Your task to perform on an android device: toggle pop-ups in chrome Image 0: 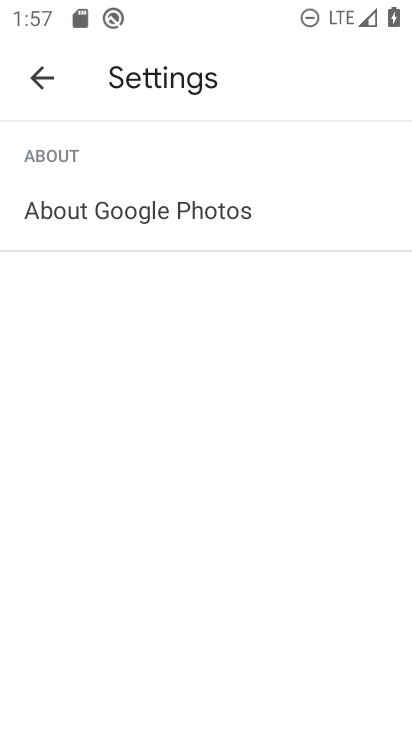
Step 0: press home button
Your task to perform on an android device: toggle pop-ups in chrome Image 1: 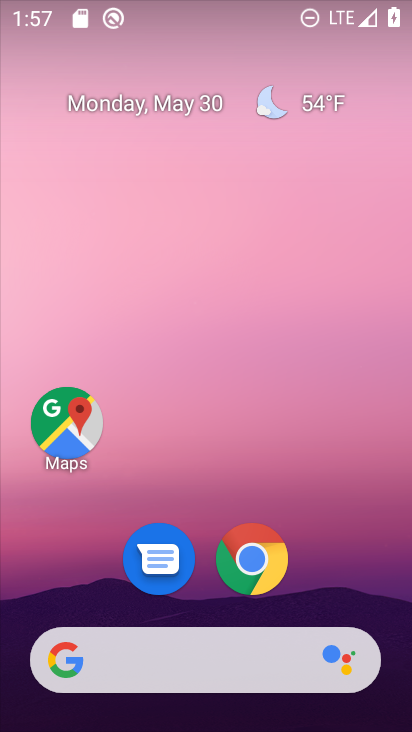
Step 1: click (252, 552)
Your task to perform on an android device: toggle pop-ups in chrome Image 2: 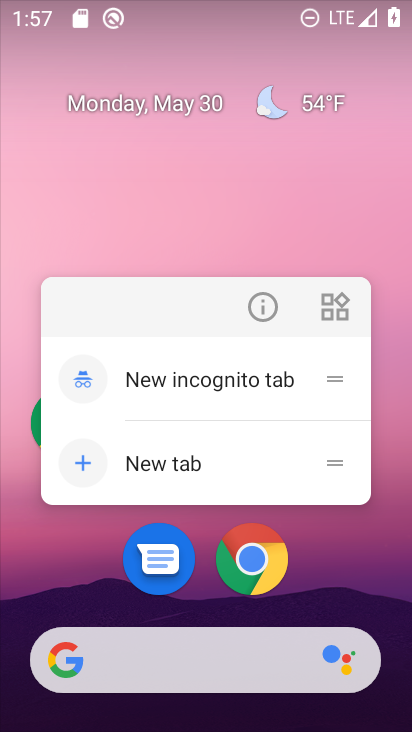
Step 2: click (249, 547)
Your task to perform on an android device: toggle pop-ups in chrome Image 3: 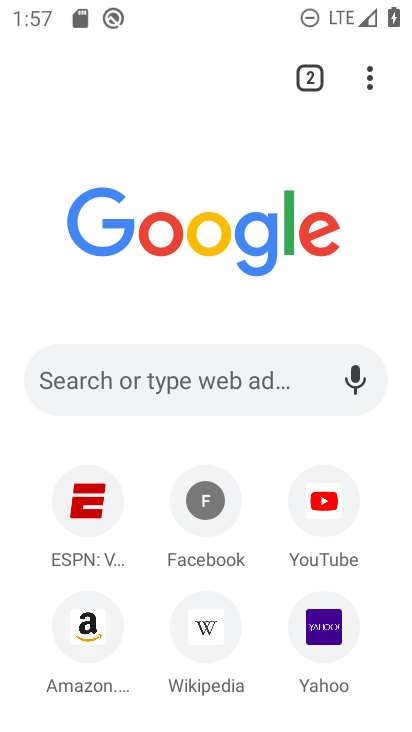
Step 3: click (368, 70)
Your task to perform on an android device: toggle pop-ups in chrome Image 4: 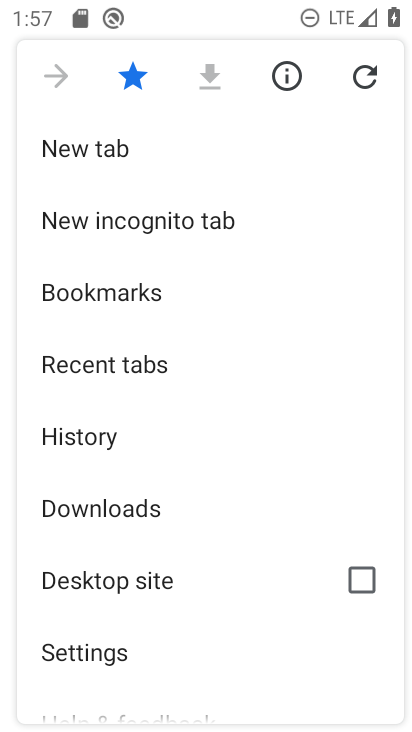
Step 4: click (125, 651)
Your task to perform on an android device: toggle pop-ups in chrome Image 5: 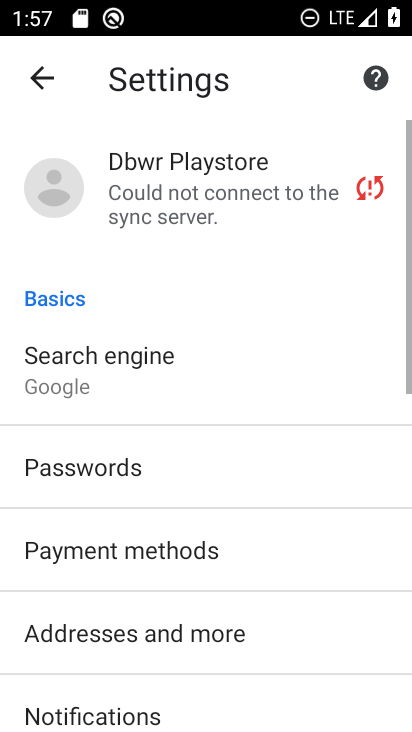
Step 5: drag from (124, 657) to (214, 102)
Your task to perform on an android device: toggle pop-ups in chrome Image 6: 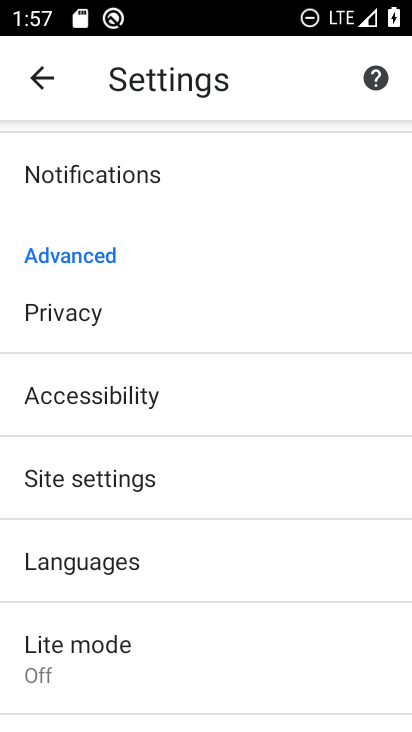
Step 6: click (127, 492)
Your task to perform on an android device: toggle pop-ups in chrome Image 7: 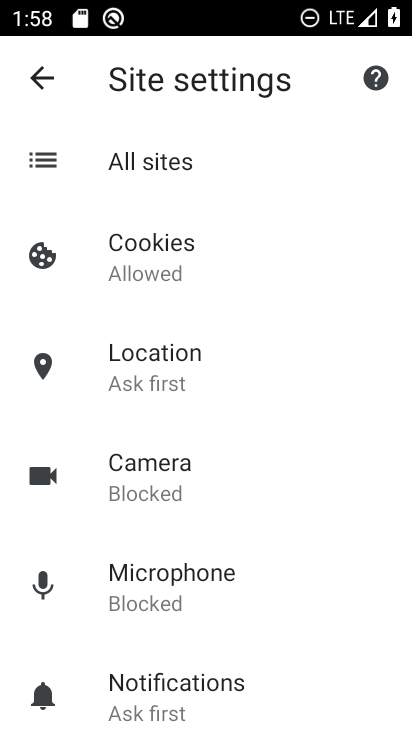
Step 7: drag from (194, 683) to (246, 271)
Your task to perform on an android device: toggle pop-ups in chrome Image 8: 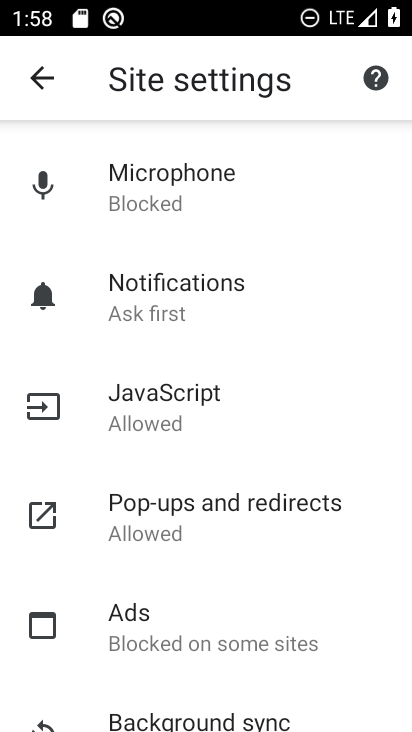
Step 8: click (186, 512)
Your task to perform on an android device: toggle pop-ups in chrome Image 9: 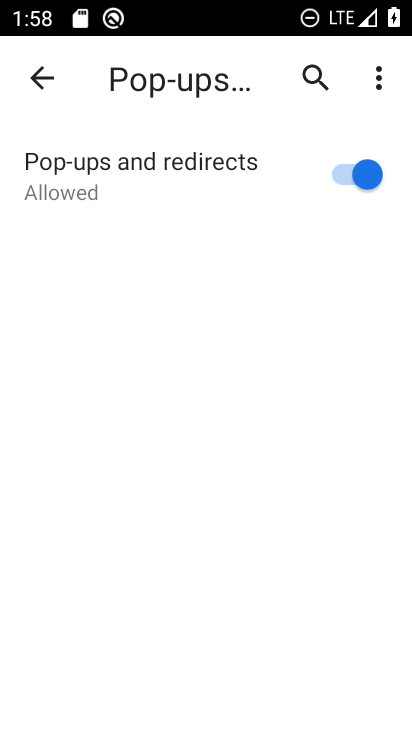
Step 9: click (341, 168)
Your task to perform on an android device: toggle pop-ups in chrome Image 10: 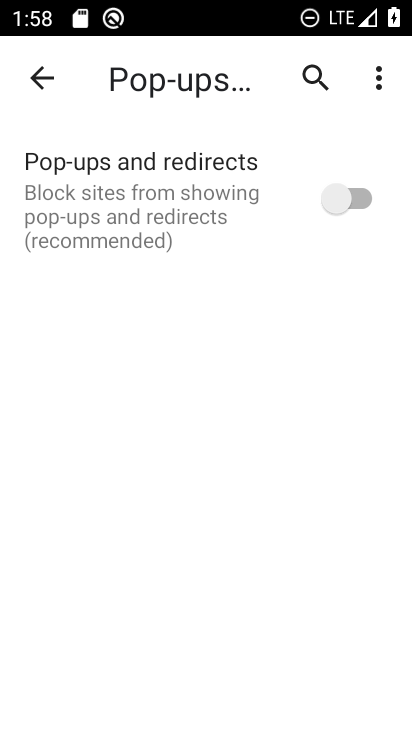
Step 10: task complete